Your task to perform on an android device: see tabs open on other devices in the chrome app Image 0: 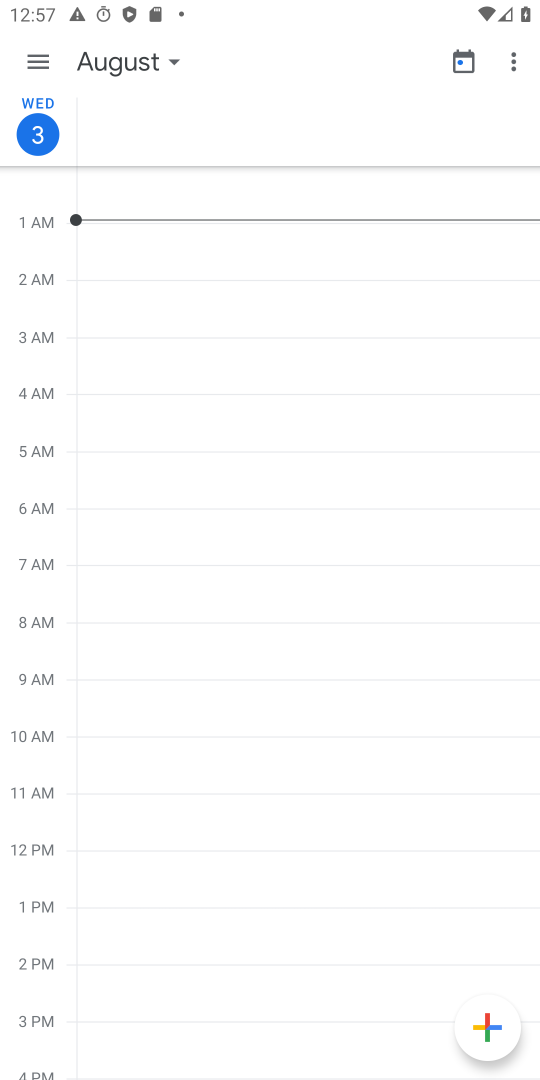
Step 0: press home button
Your task to perform on an android device: see tabs open on other devices in the chrome app Image 1: 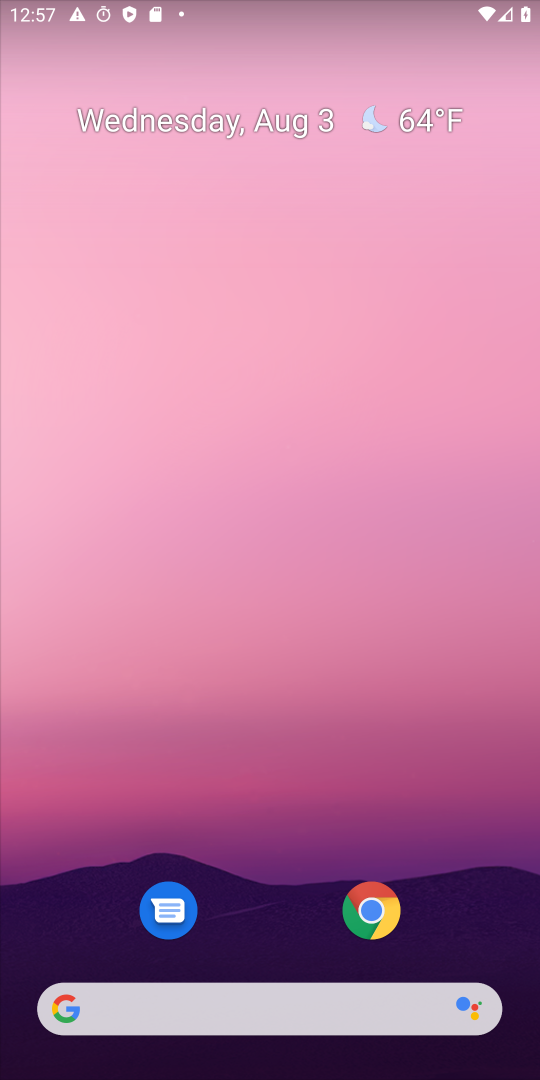
Step 1: drag from (379, 665) to (509, 673)
Your task to perform on an android device: see tabs open on other devices in the chrome app Image 2: 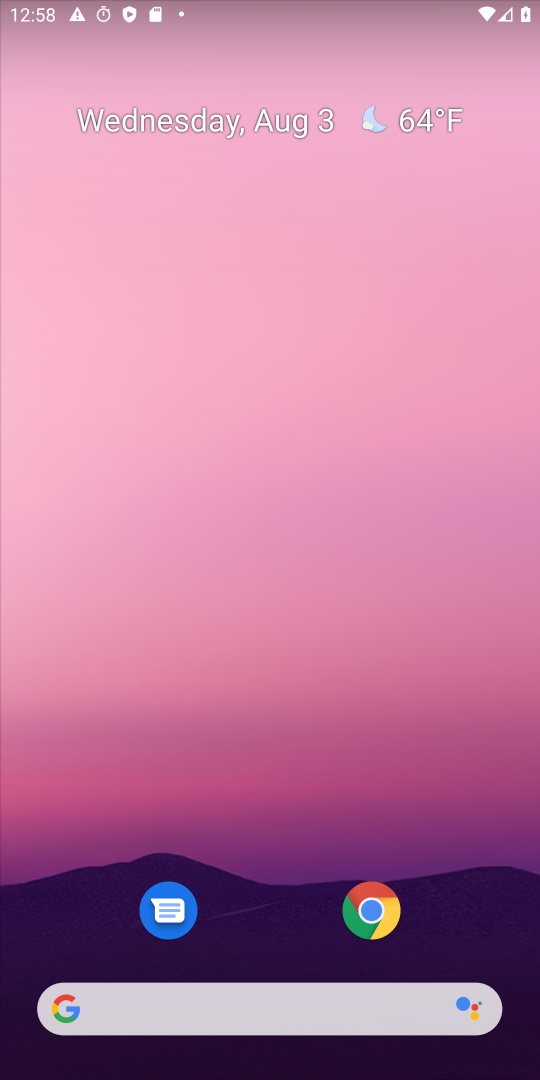
Step 2: drag from (327, 1029) to (446, 0)
Your task to perform on an android device: see tabs open on other devices in the chrome app Image 3: 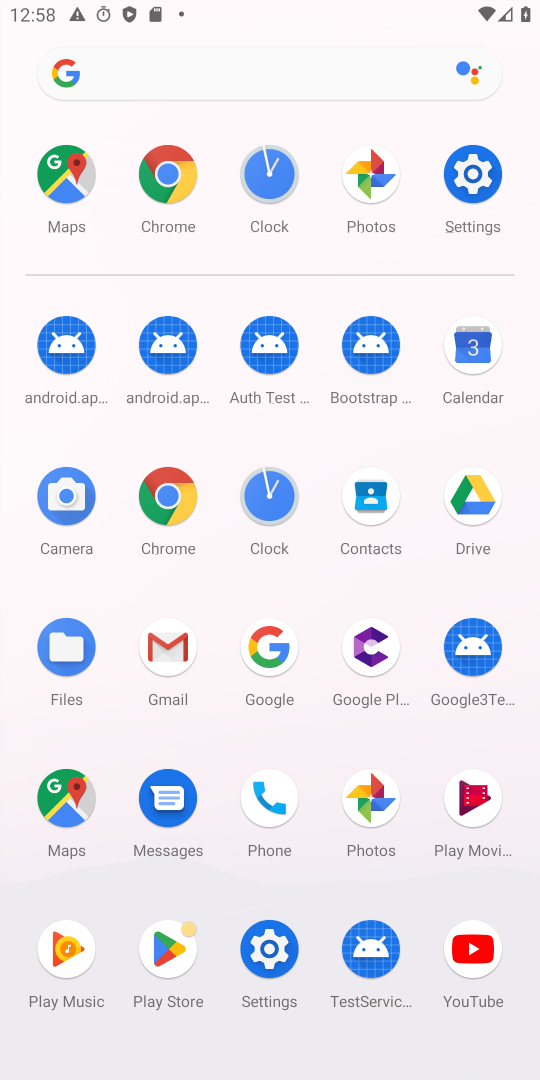
Step 3: click (157, 484)
Your task to perform on an android device: see tabs open on other devices in the chrome app Image 4: 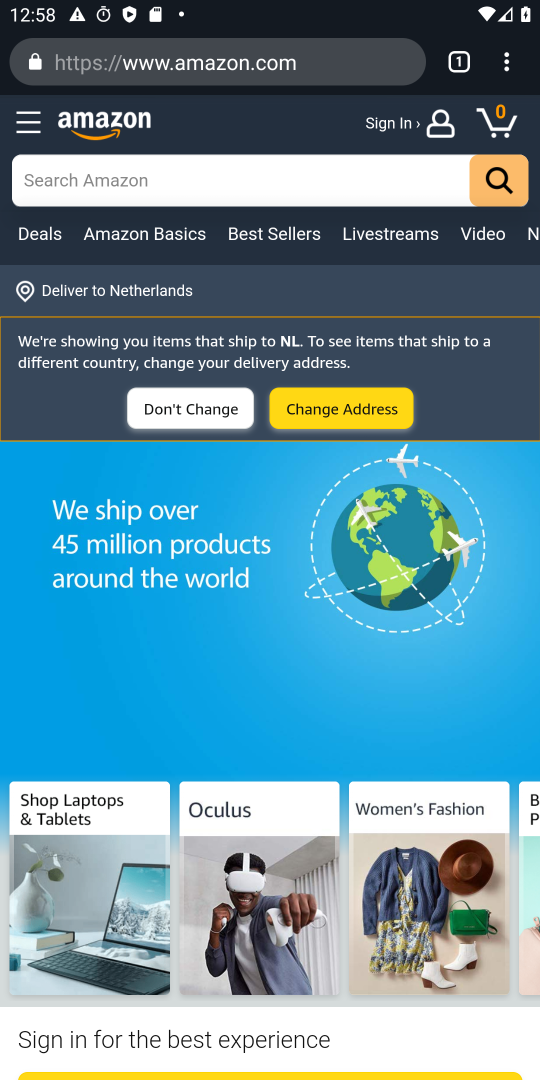
Step 4: task complete